Your task to perform on an android device: Go to calendar. Show me events next week Image 0: 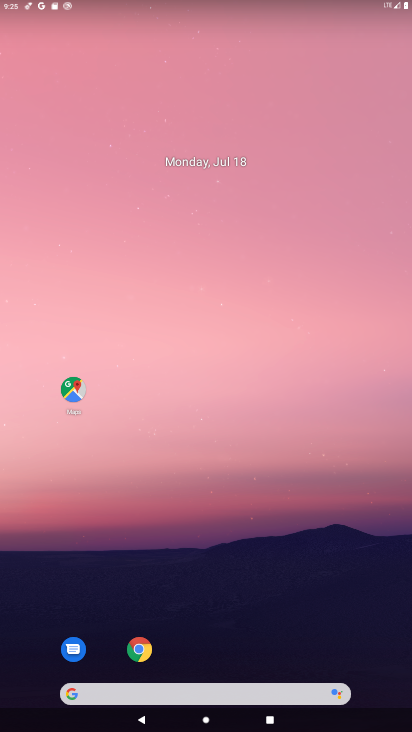
Step 0: drag from (214, 681) to (304, 432)
Your task to perform on an android device: Go to calendar. Show me events next week Image 1: 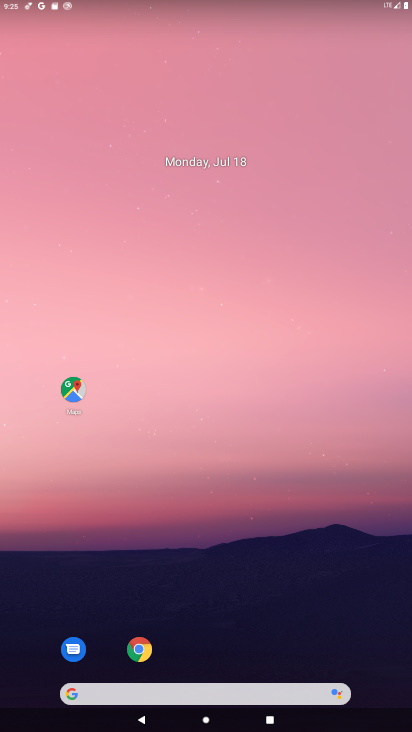
Step 1: drag from (209, 675) to (260, 343)
Your task to perform on an android device: Go to calendar. Show me events next week Image 2: 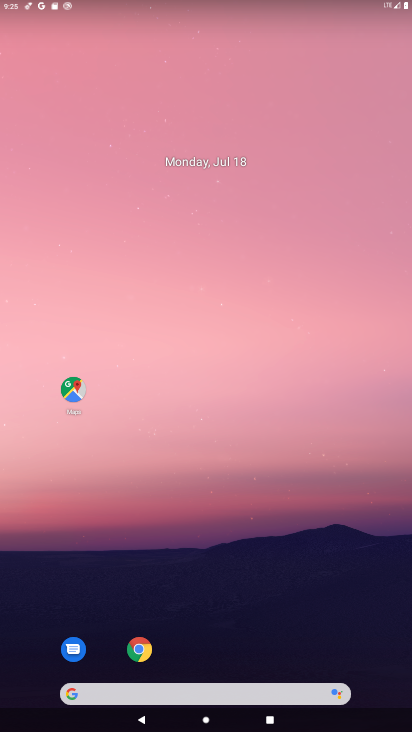
Step 2: drag from (179, 683) to (174, 270)
Your task to perform on an android device: Go to calendar. Show me events next week Image 3: 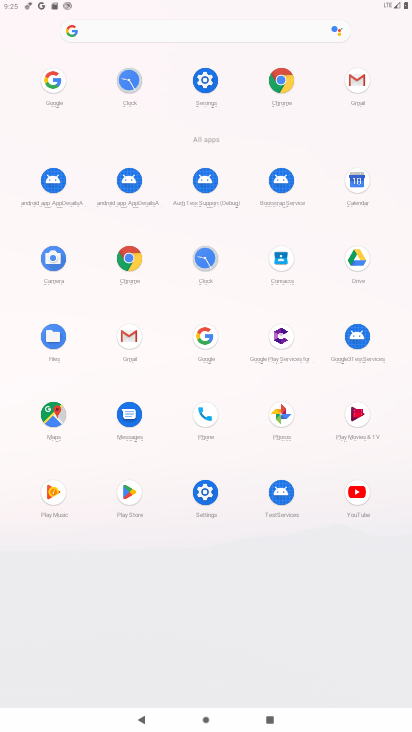
Step 3: click (356, 178)
Your task to perform on an android device: Go to calendar. Show me events next week Image 4: 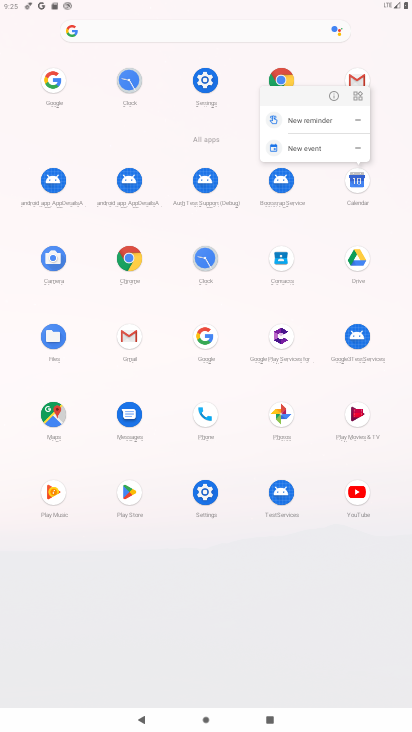
Step 4: click (360, 179)
Your task to perform on an android device: Go to calendar. Show me events next week Image 5: 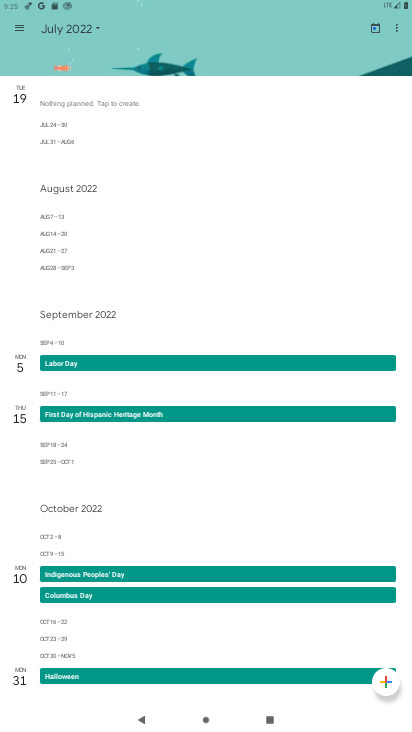
Step 5: click (82, 23)
Your task to perform on an android device: Go to calendar. Show me events next week Image 6: 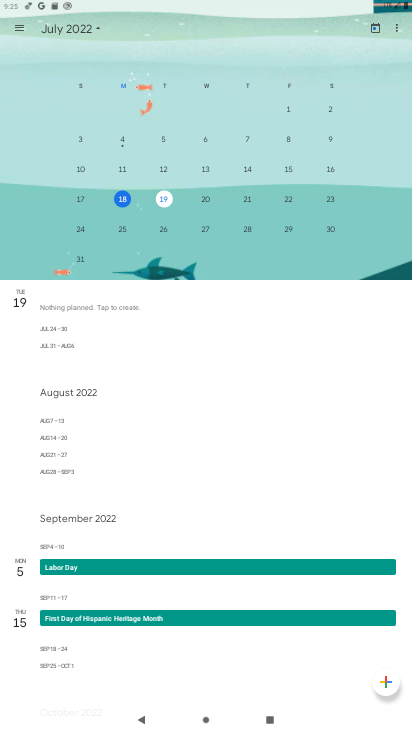
Step 6: click (119, 227)
Your task to perform on an android device: Go to calendar. Show me events next week Image 7: 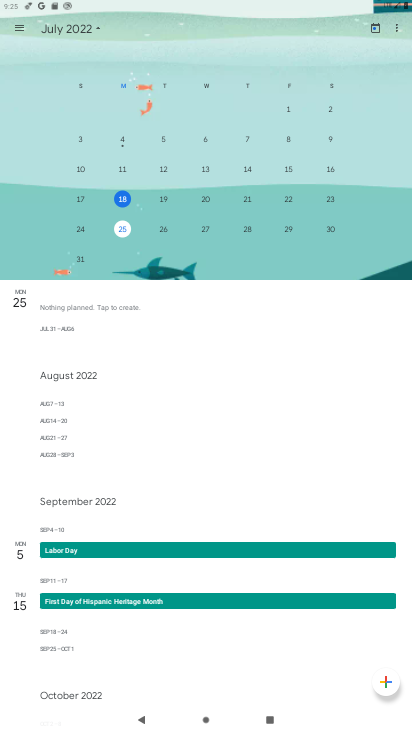
Step 7: click (185, 222)
Your task to perform on an android device: Go to calendar. Show me events next week Image 8: 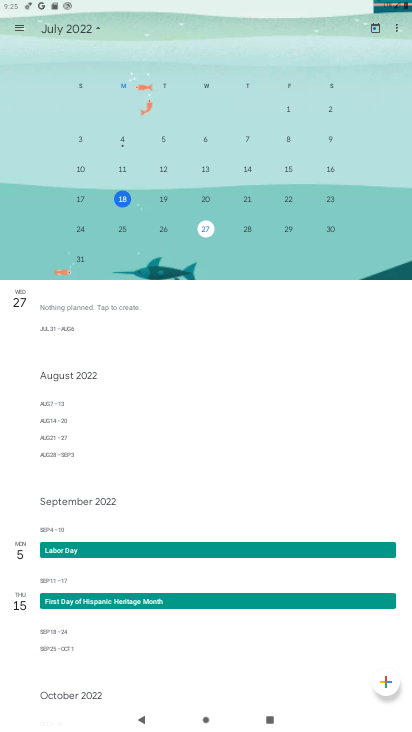
Step 8: click (159, 235)
Your task to perform on an android device: Go to calendar. Show me events next week Image 9: 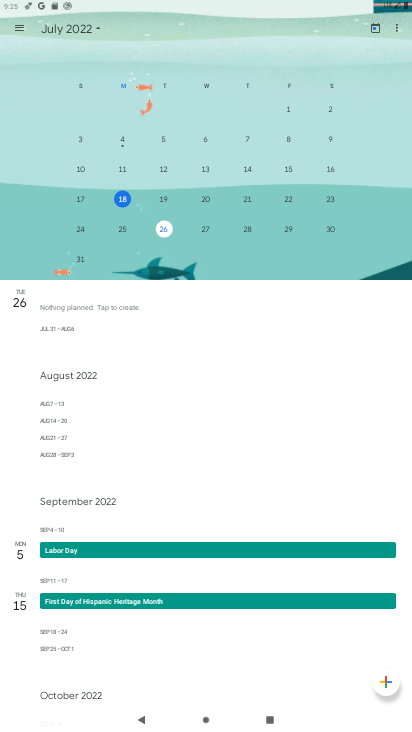
Step 9: click (246, 225)
Your task to perform on an android device: Go to calendar. Show me events next week Image 10: 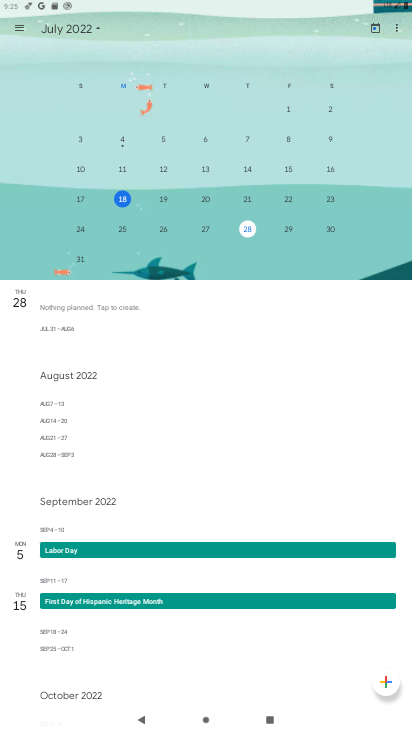
Step 10: click (299, 230)
Your task to perform on an android device: Go to calendar. Show me events next week Image 11: 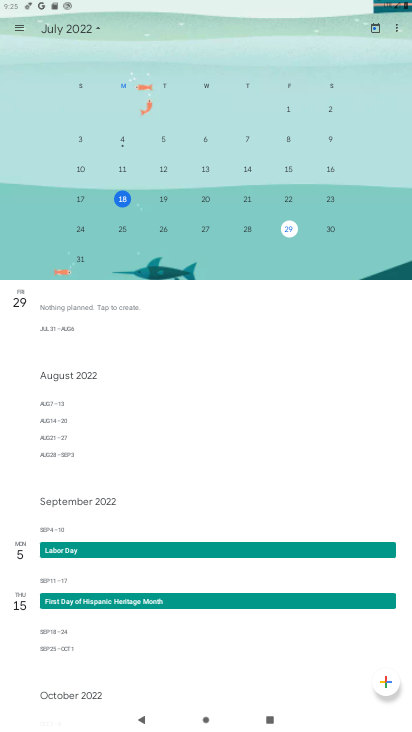
Step 11: click (321, 222)
Your task to perform on an android device: Go to calendar. Show me events next week Image 12: 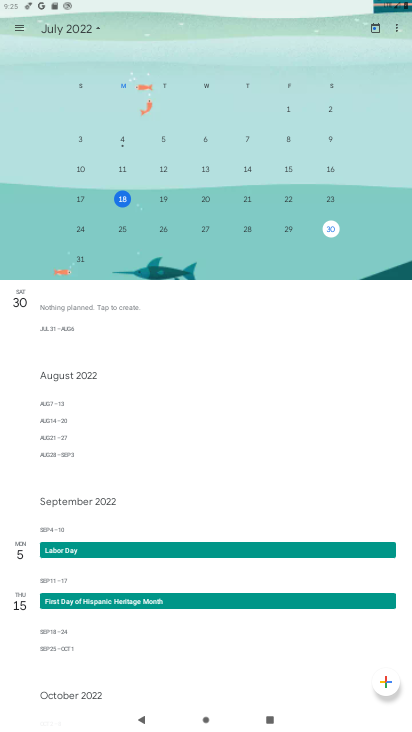
Step 12: click (78, 261)
Your task to perform on an android device: Go to calendar. Show me events next week Image 13: 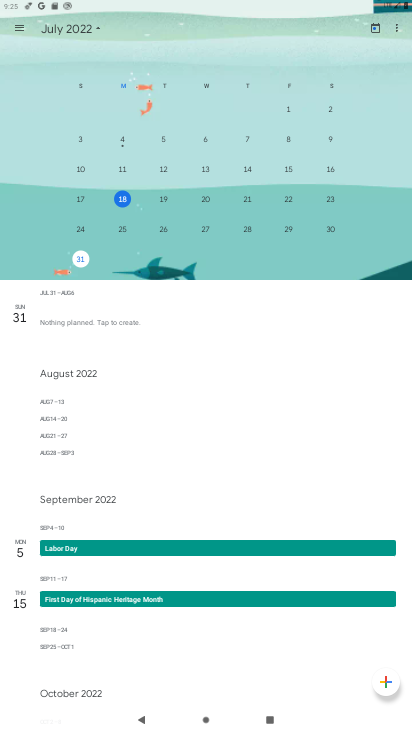
Step 13: task complete